Your task to perform on an android device: turn notification dots on Image 0: 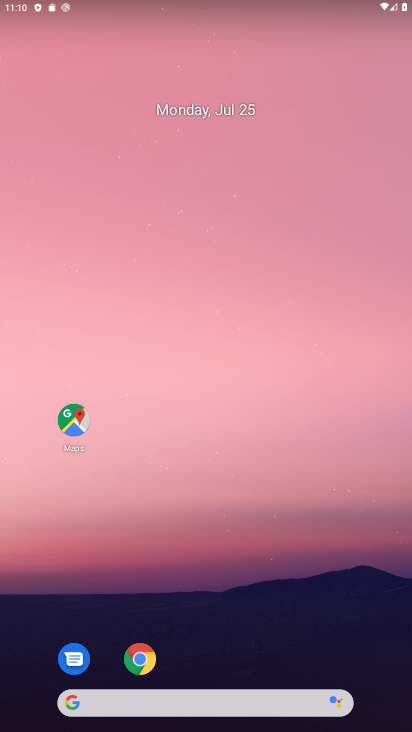
Step 0: drag from (62, 660) to (158, 350)
Your task to perform on an android device: turn notification dots on Image 1: 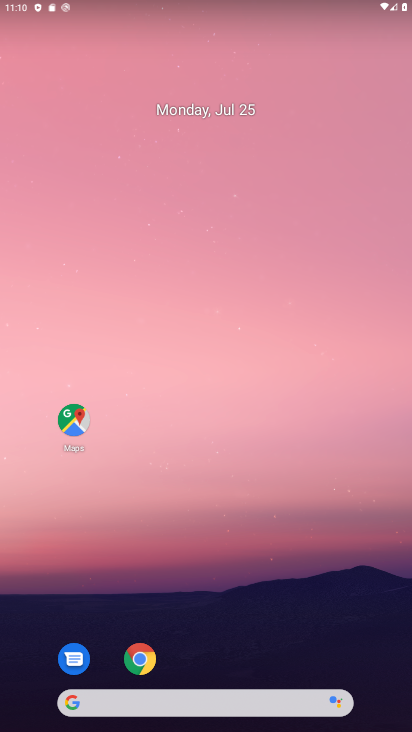
Step 1: drag from (13, 683) to (234, 31)
Your task to perform on an android device: turn notification dots on Image 2: 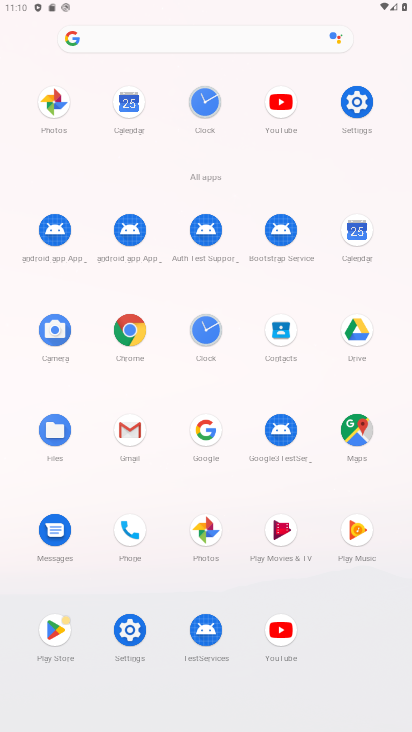
Step 2: click (129, 638)
Your task to perform on an android device: turn notification dots on Image 3: 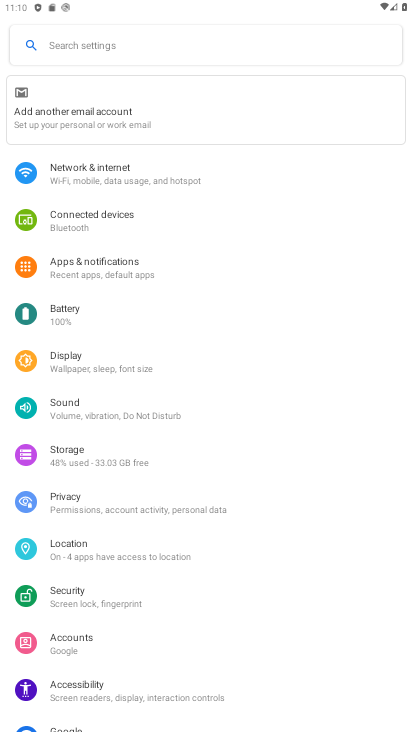
Step 3: click (299, 341)
Your task to perform on an android device: turn notification dots on Image 4: 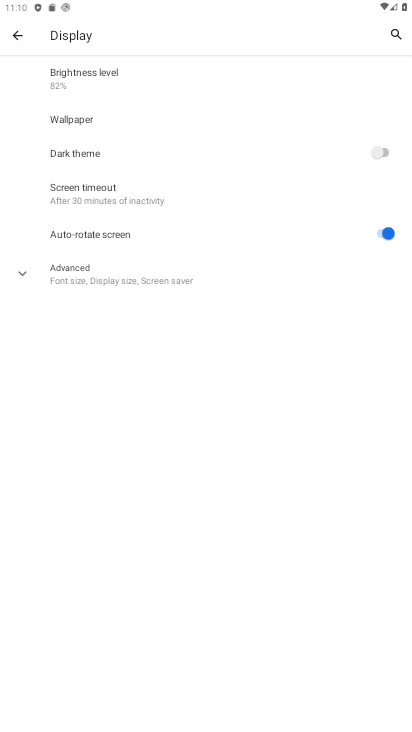
Step 4: click (9, 27)
Your task to perform on an android device: turn notification dots on Image 5: 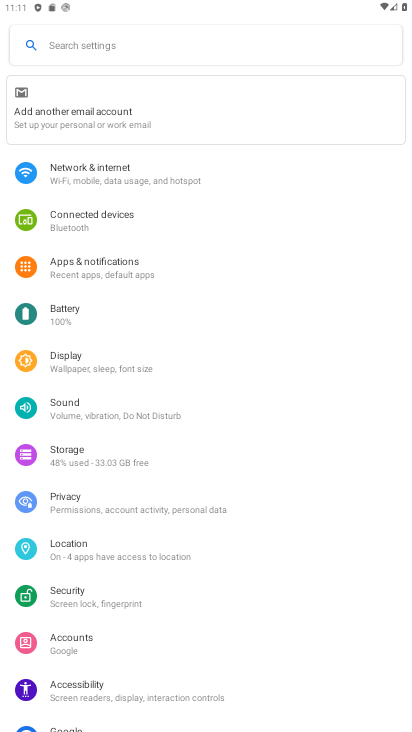
Step 5: drag from (243, 284) to (263, 705)
Your task to perform on an android device: turn notification dots on Image 6: 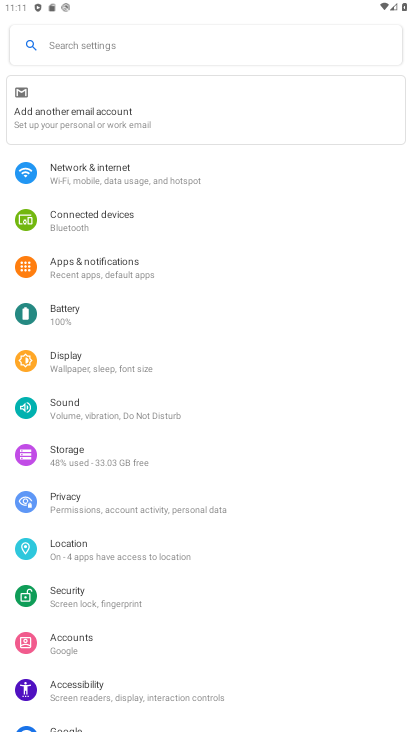
Step 6: click (98, 260)
Your task to perform on an android device: turn notification dots on Image 7: 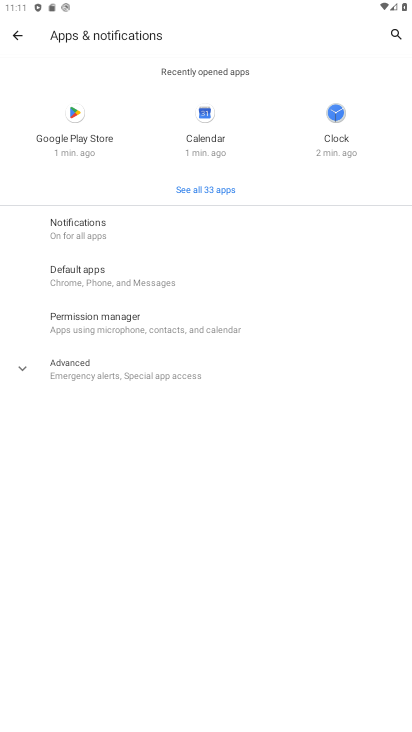
Step 7: click (97, 232)
Your task to perform on an android device: turn notification dots on Image 8: 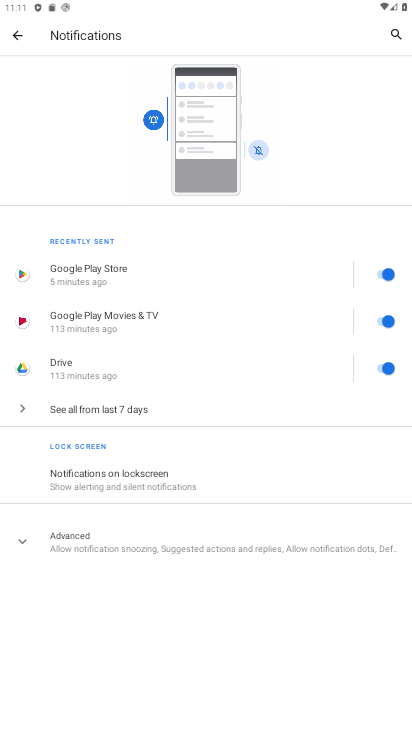
Step 8: click (79, 540)
Your task to perform on an android device: turn notification dots on Image 9: 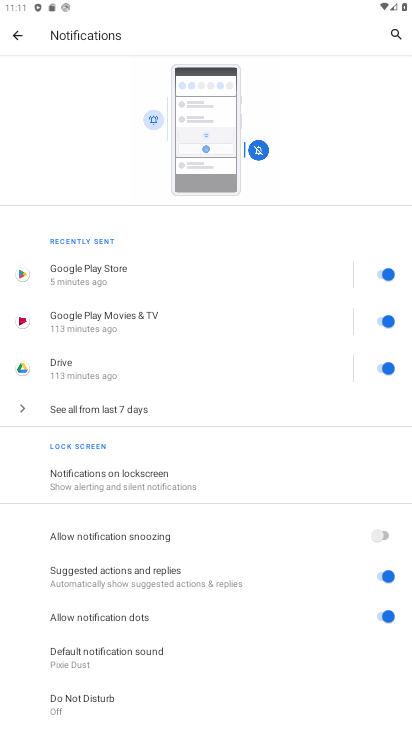
Step 9: task complete